Your task to perform on an android device: all mails in gmail Image 0: 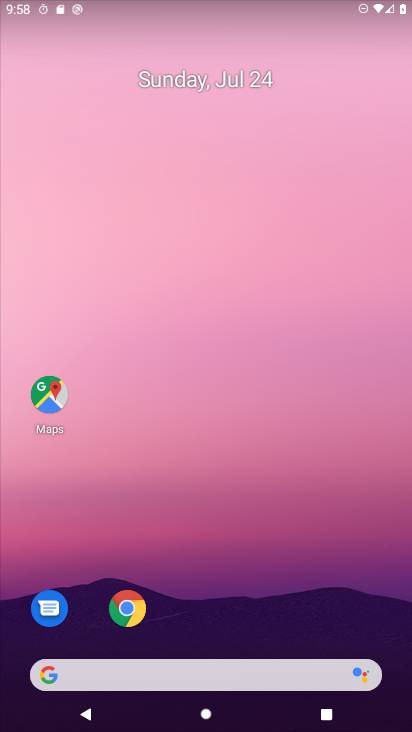
Step 0: drag from (172, 609) to (241, 43)
Your task to perform on an android device: all mails in gmail Image 1: 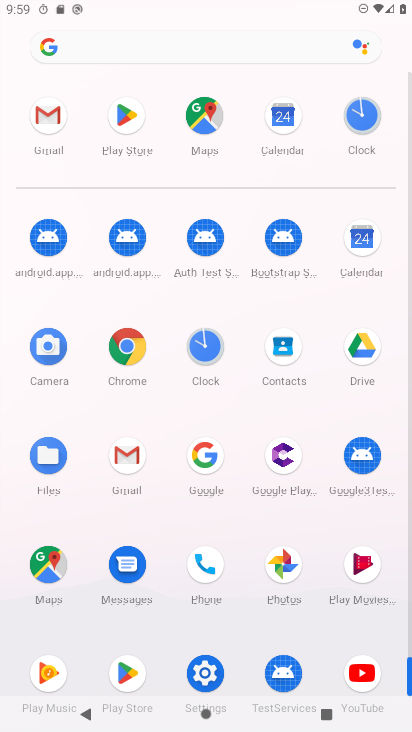
Step 1: click (132, 457)
Your task to perform on an android device: all mails in gmail Image 2: 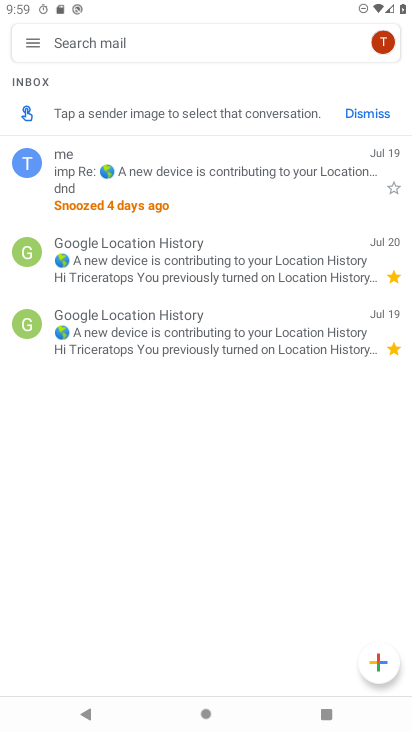
Step 2: drag from (185, 511) to (282, 326)
Your task to perform on an android device: all mails in gmail Image 3: 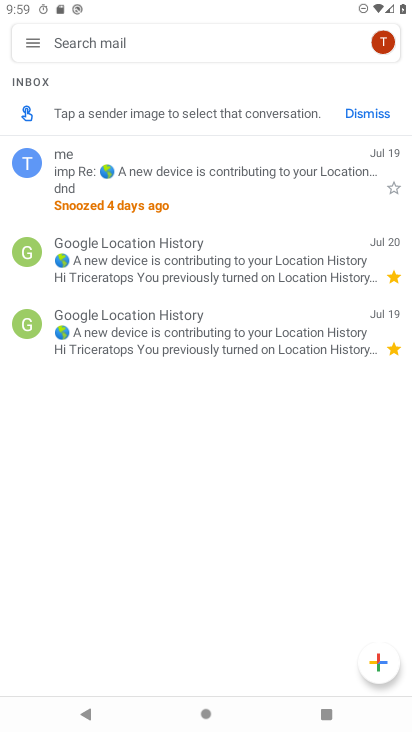
Step 3: drag from (137, 393) to (139, 324)
Your task to perform on an android device: all mails in gmail Image 4: 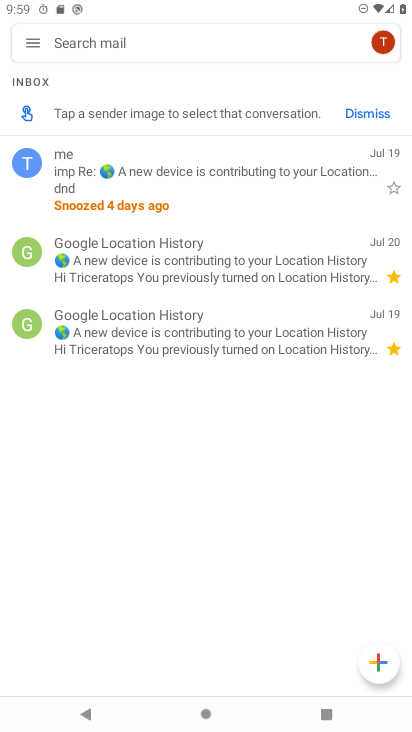
Step 4: click (15, 17)
Your task to perform on an android device: all mails in gmail Image 5: 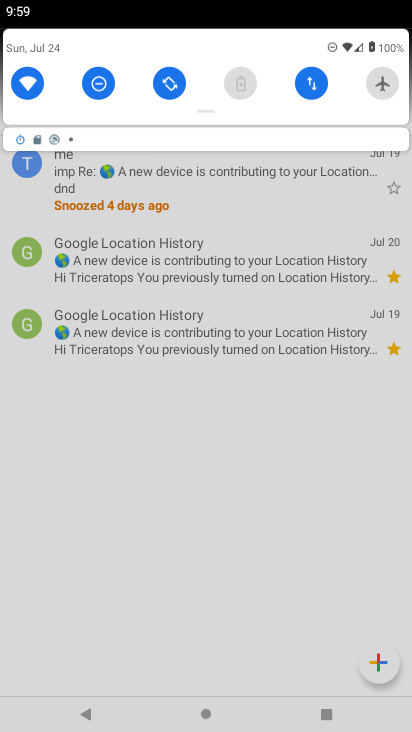
Step 5: click (33, 36)
Your task to perform on an android device: all mails in gmail Image 6: 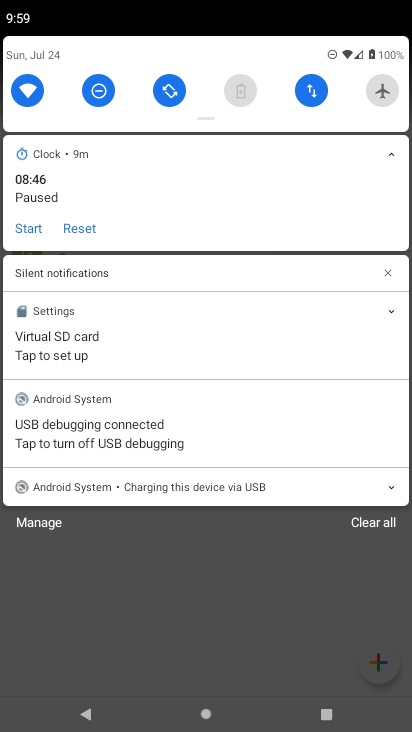
Step 6: press back button
Your task to perform on an android device: all mails in gmail Image 7: 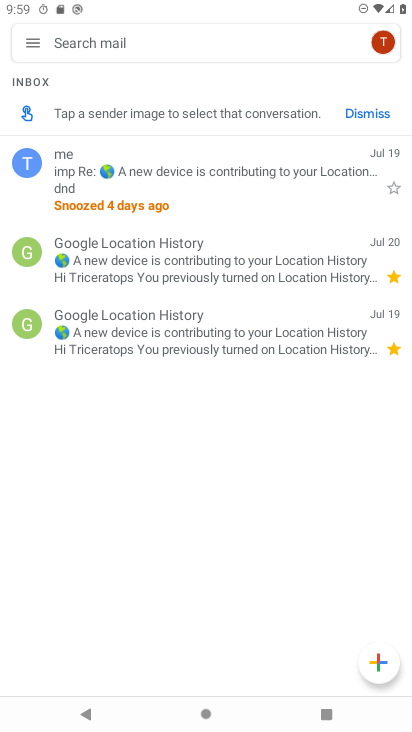
Step 7: click (36, 49)
Your task to perform on an android device: all mails in gmail Image 8: 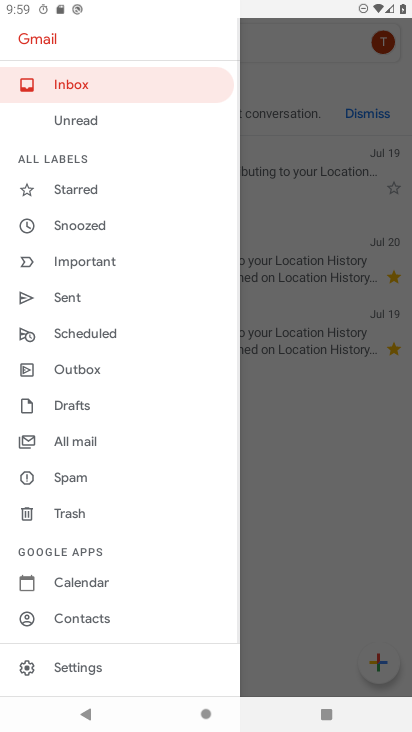
Step 8: click (87, 436)
Your task to perform on an android device: all mails in gmail Image 9: 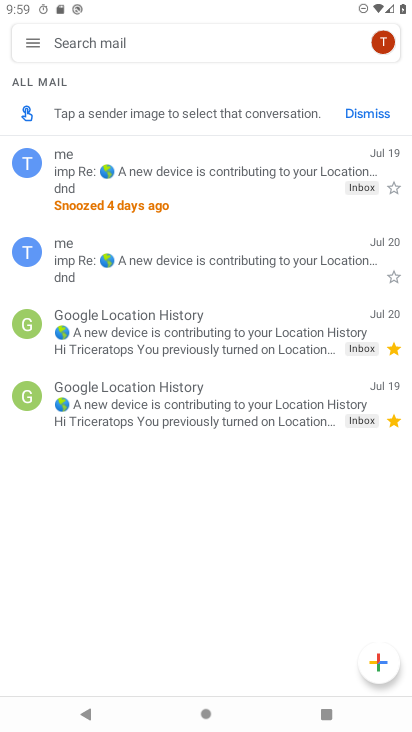
Step 9: task complete